Your task to perform on an android device: Go to wifi settings Image 0: 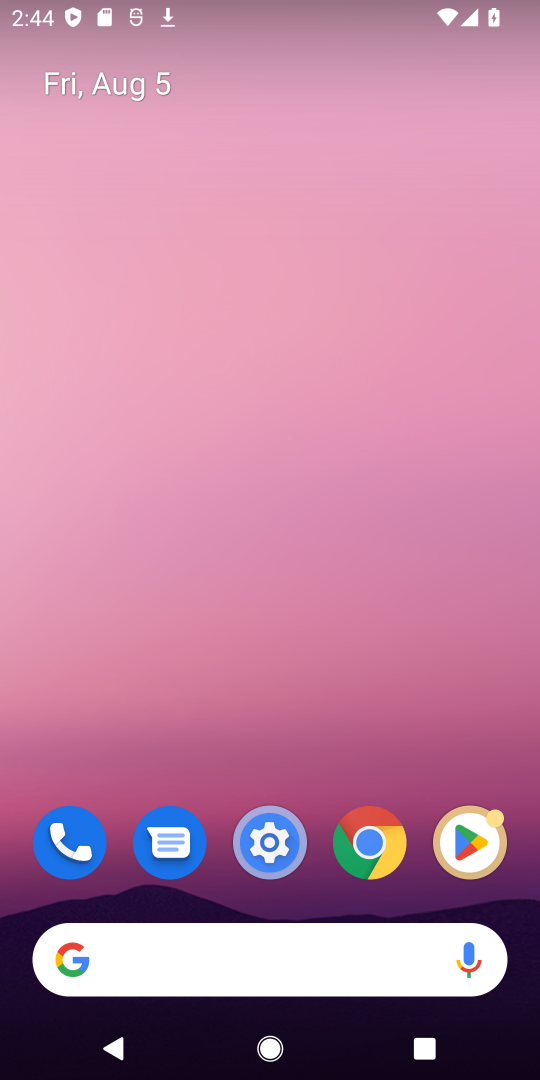
Step 0: click (267, 849)
Your task to perform on an android device: Go to wifi settings Image 1: 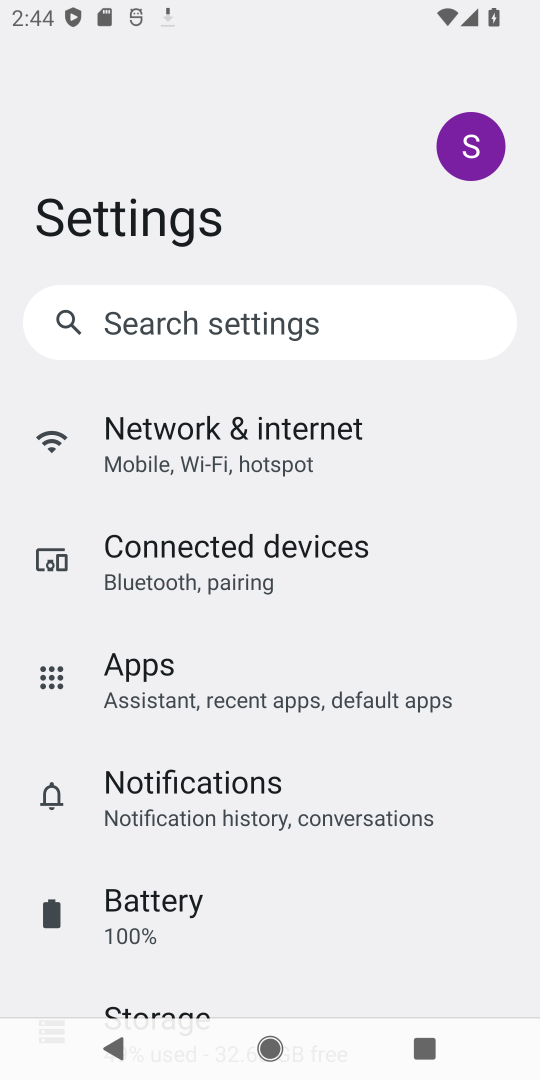
Step 1: click (274, 440)
Your task to perform on an android device: Go to wifi settings Image 2: 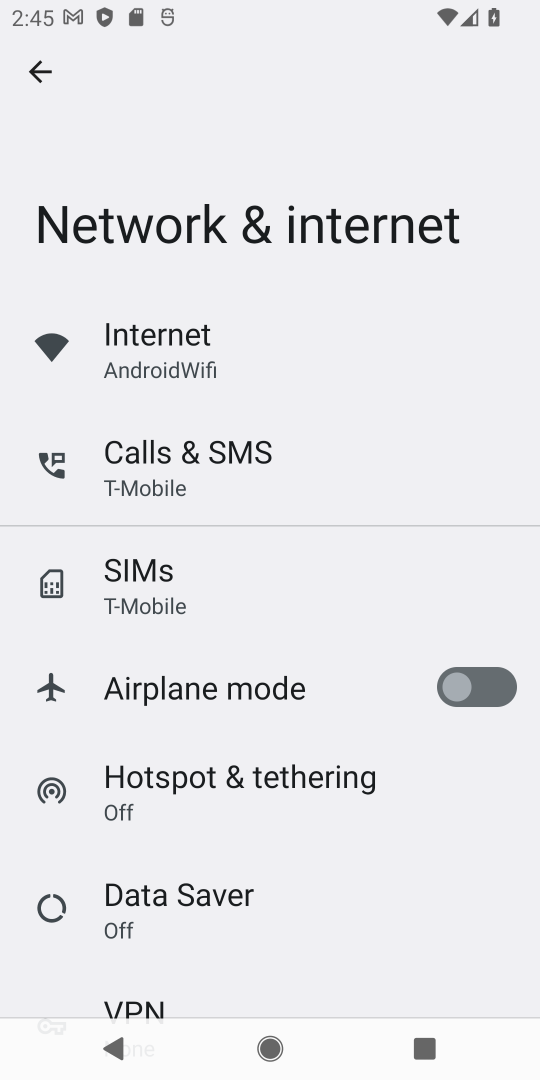
Step 2: click (167, 341)
Your task to perform on an android device: Go to wifi settings Image 3: 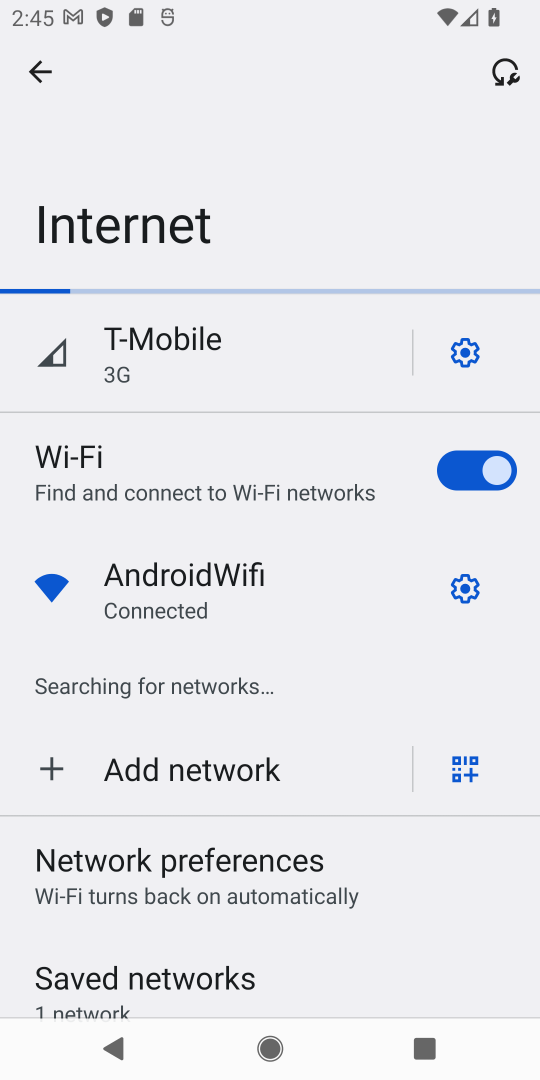
Step 3: task complete